Your task to perform on an android device: check the backup settings in the google photos Image 0: 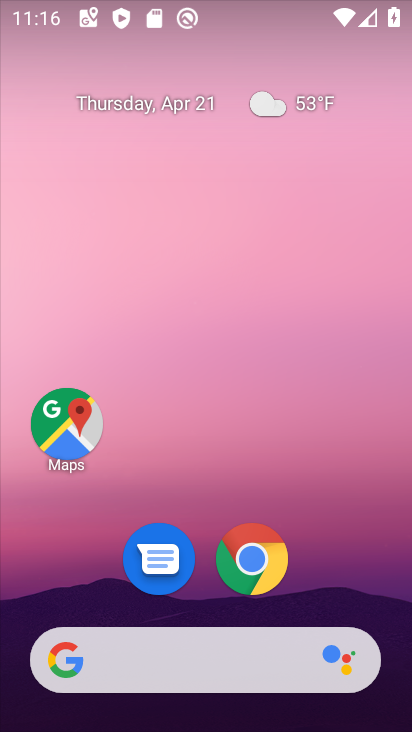
Step 0: drag from (391, 616) to (394, 3)
Your task to perform on an android device: check the backup settings in the google photos Image 1: 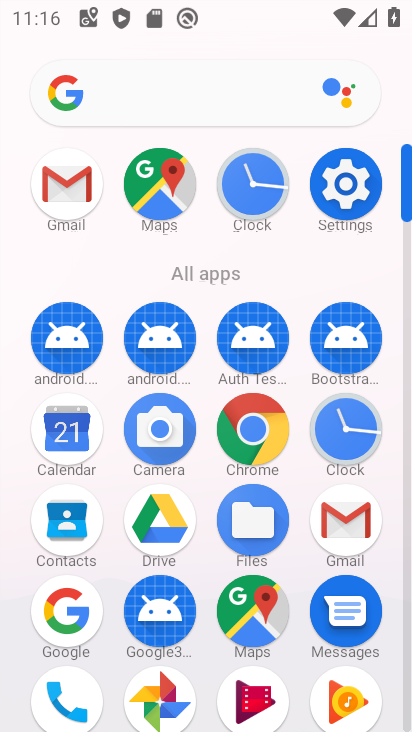
Step 1: click (158, 692)
Your task to perform on an android device: check the backup settings in the google photos Image 2: 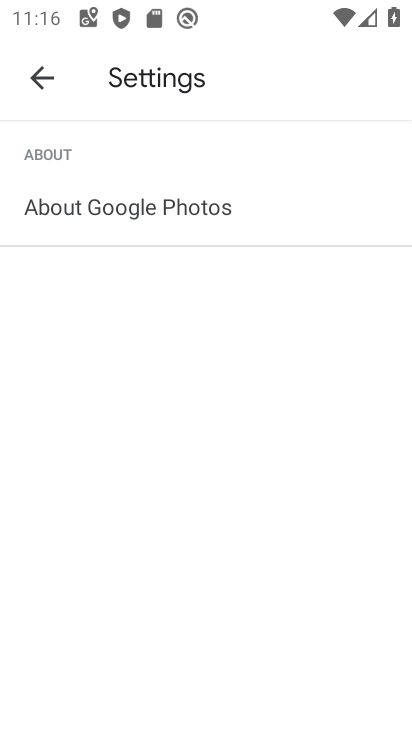
Step 2: click (39, 79)
Your task to perform on an android device: check the backup settings in the google photos Image 3: 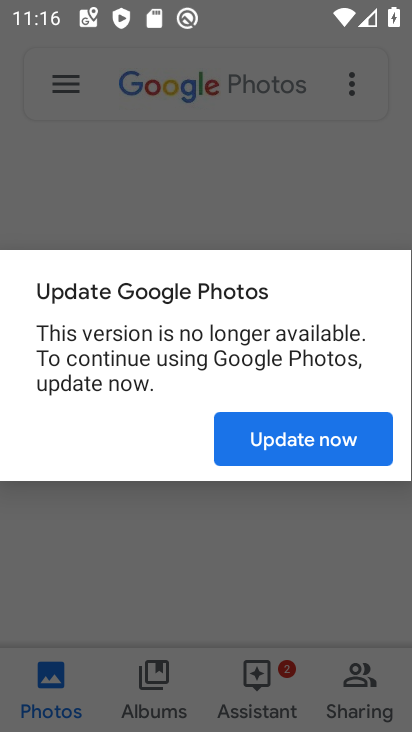
Step 3: click (281, 441)
Your task to perform on an android device: check the backup settings in the google photos Image 4: 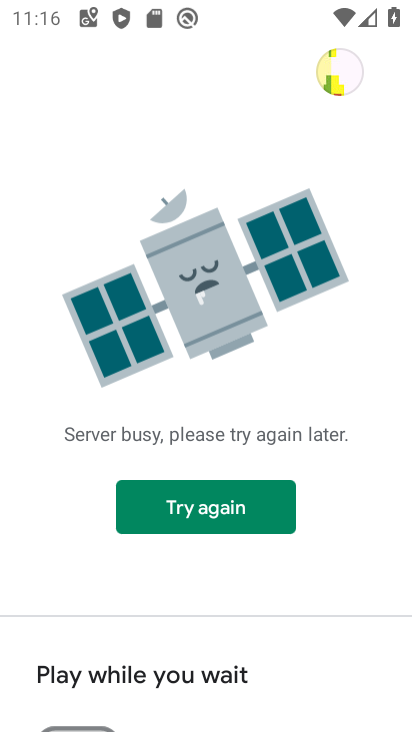
Step 4: press back button
Your task to perform on an android device: check the backup settings in the google photos Image 5: 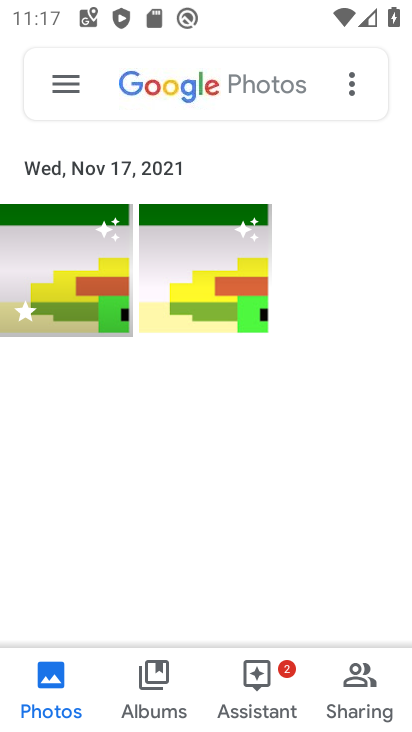
Step 5: click (65, 85)
Your task to perform on an android device: check the backup settings in the google photos Image 6: 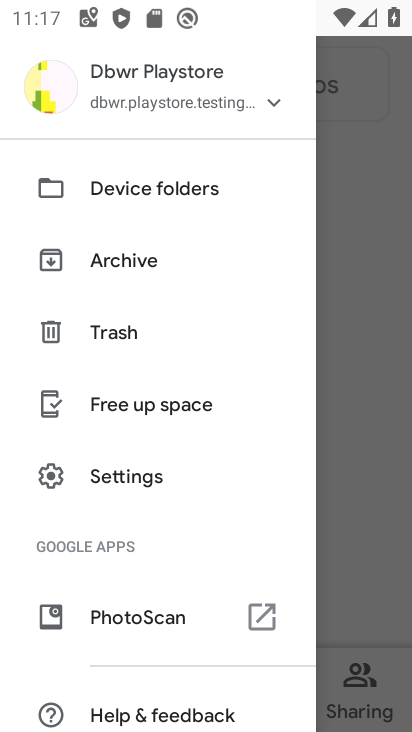
Step 6: click (133, 475)
Your task to perform on an android device: check the backup settings in the google photos Image 7: 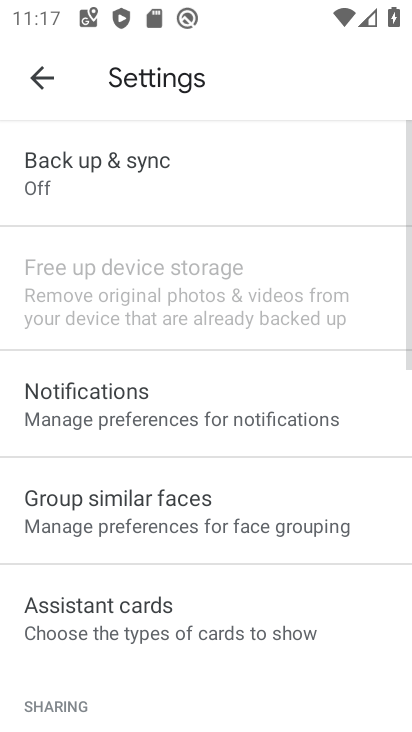
Step 7: click (106, 161)
Your task to perform on an android device: check the backup settings in the google photos Image 8: 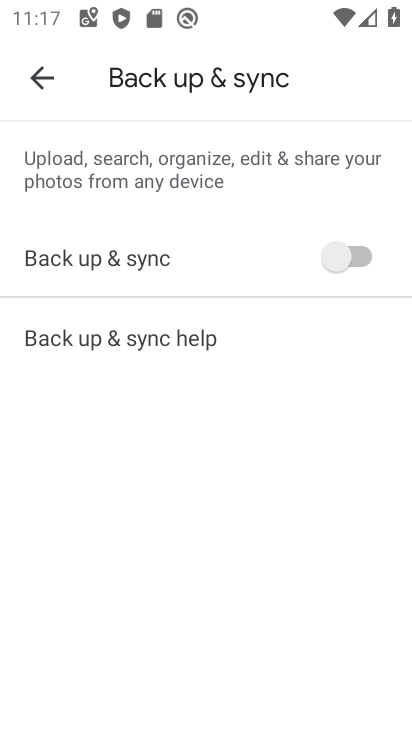
Step 8: click (335, 255)
Your task to perform on an android device: check the backup settings in the google photos Image 9: 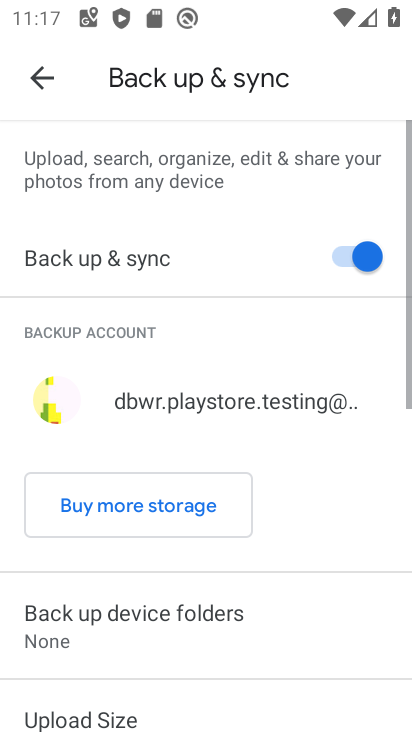
Step 9: task complete